Your task to perform on an android device: turn on bluetooth scan Image 0: 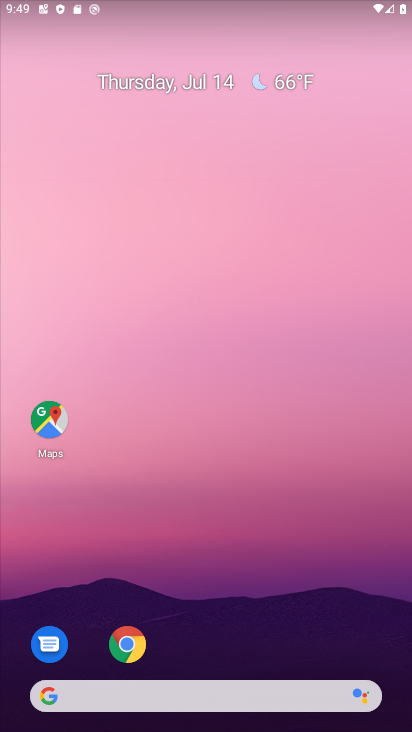
Step 0: click (193, 68)
Your task to perform on an android device: turn on bluetooth scan Image 1: 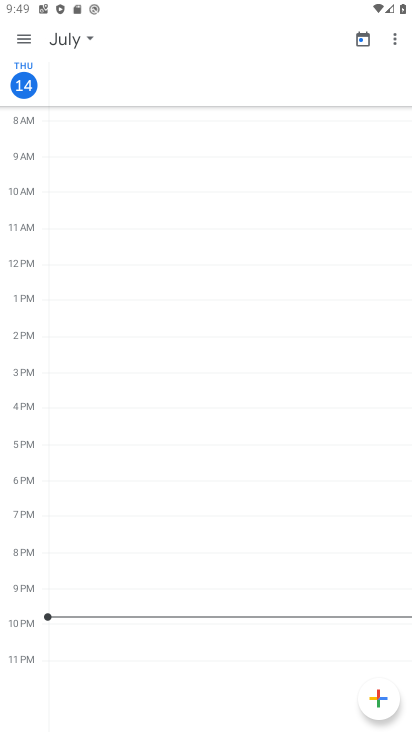
Step 1: press back button
Your task to perform on an android device: turn on bluetooth scan Image 2: 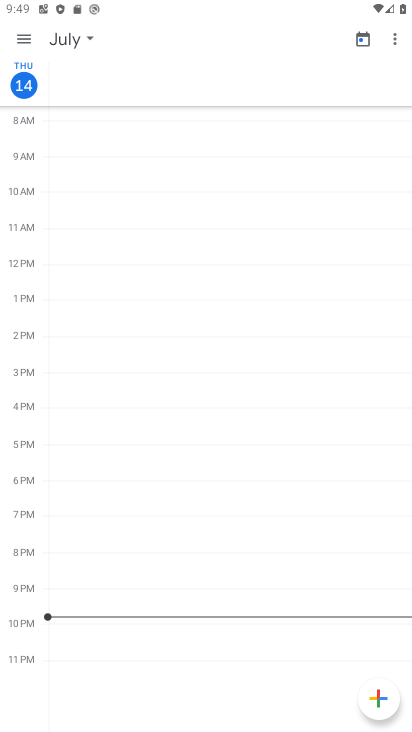
Step 2: press back button
Your task to perform on an android device: turn on bluetooth scan Image 3: 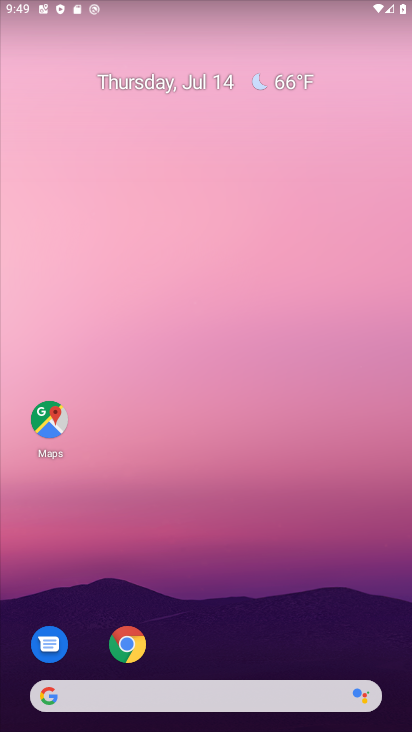
Step 3: drag from (213, 662) to (202, 48)
Your task to perform on an android device: turn on bluetooth scan Image 4: 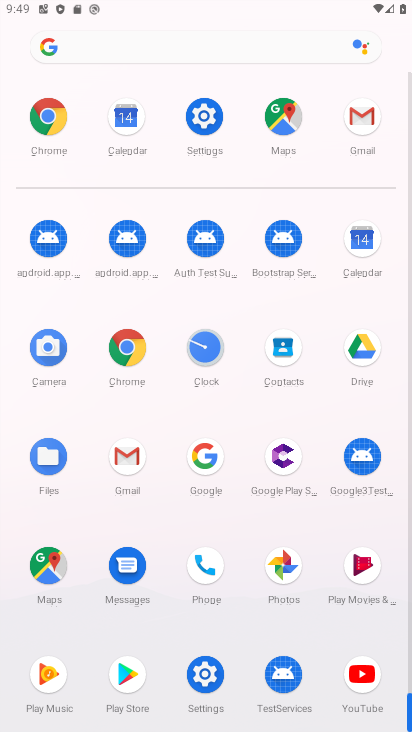
Step 4: click (200, 119)
Your task to perform on an android device: turn on bluetooth scan Image 5: 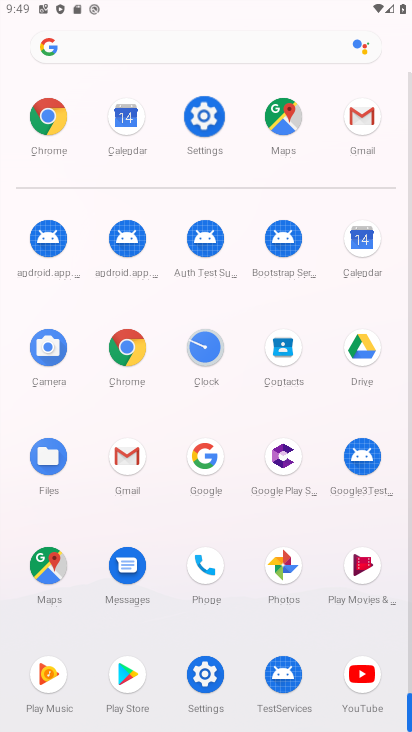
Step 5: click (198, 120)
Your task to perform on an android device: turn on bluetooth scan Image 6: 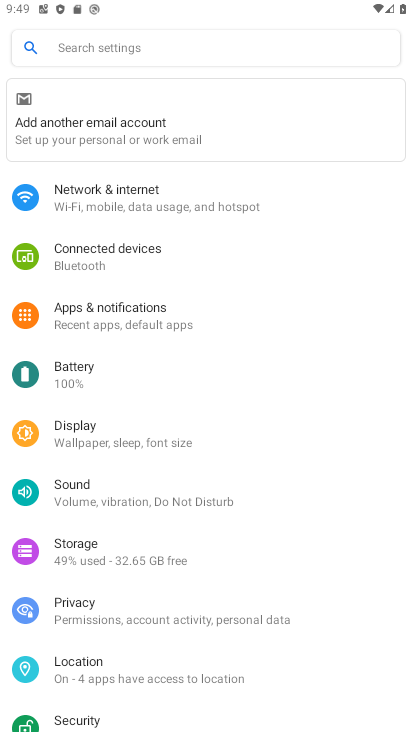
Step 6: drag from (187, 651) to (78, 116)
Your task to perform on an android device: turn on bluetooth scan Image 7: 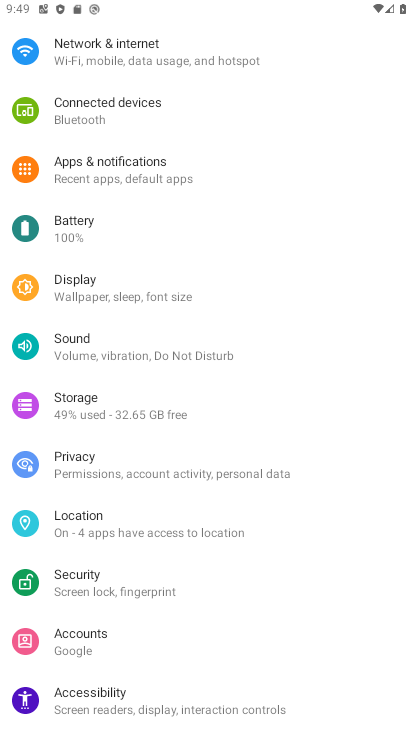
Step 7: click (81, 532)
Your task to perform on an android device: turn on bluetooth scan Image 8: 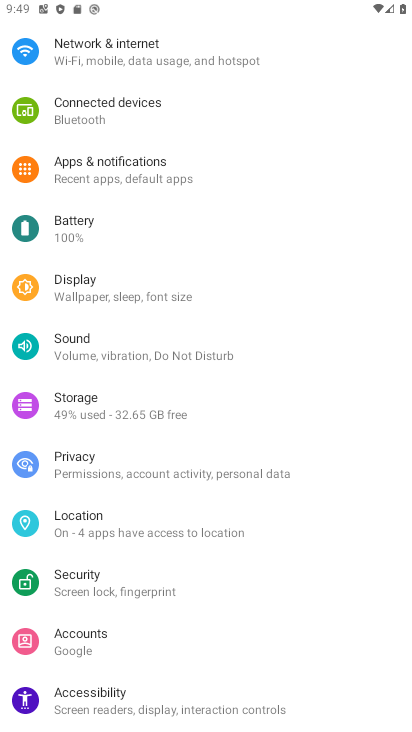
Step 8: click (90, 524)
Your task to perform on an android device: turn on bluetooth scan Image 9: 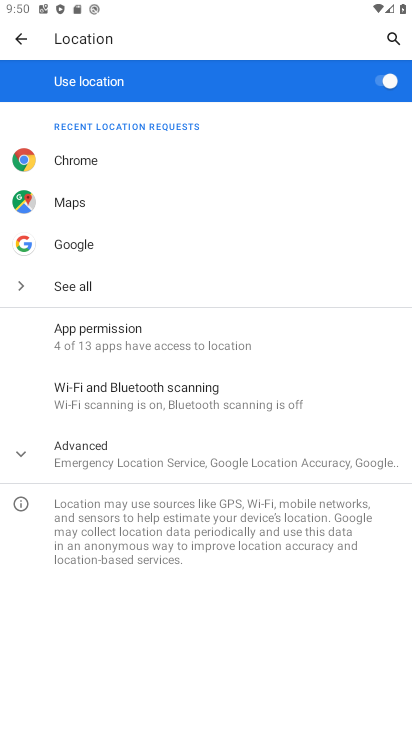
Step 9: click (166, 408)
Your task to perform on an android device: turn on bluetooth scan Image 10: 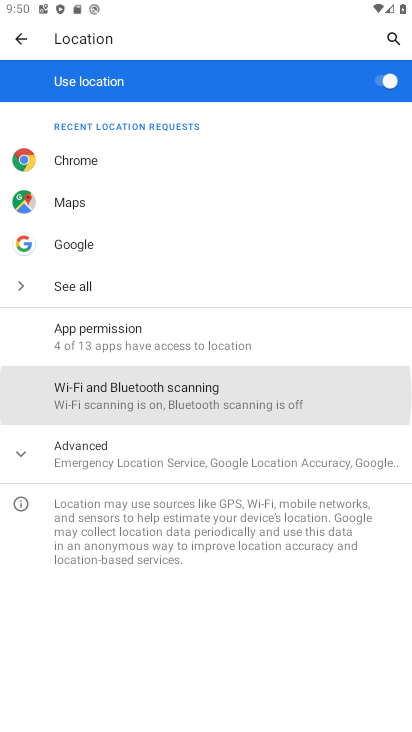
Step 10: click (167, 406)
Your task to perform on an android device: turn on bluetooth scan Image 11: 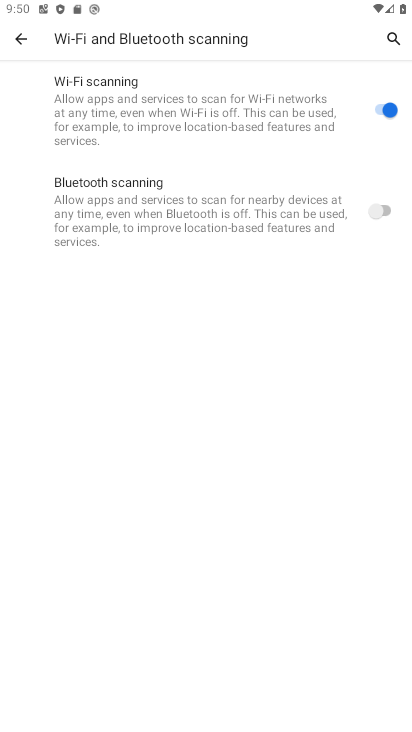
Step 11: click (173, 403)
Your task to perform on an android device: turn on bluetooth scan Image 12: 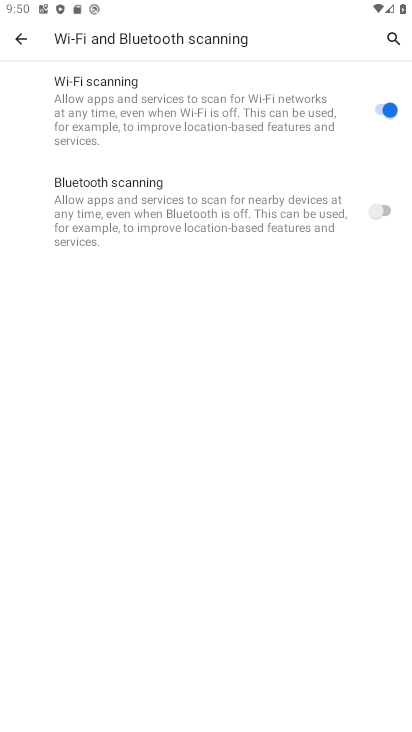
Step 12: click (373, 215)
Your task to perform on an android device: turn on bluetooth scan Image 13: 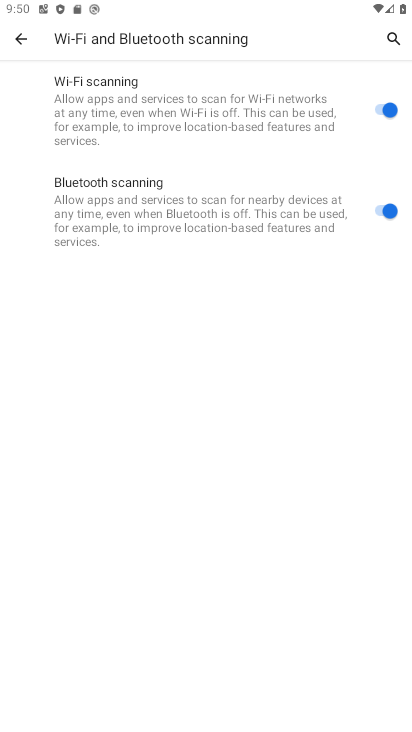
Step 13: task complete